Your task to perform on an android device: delete location history Image 0: 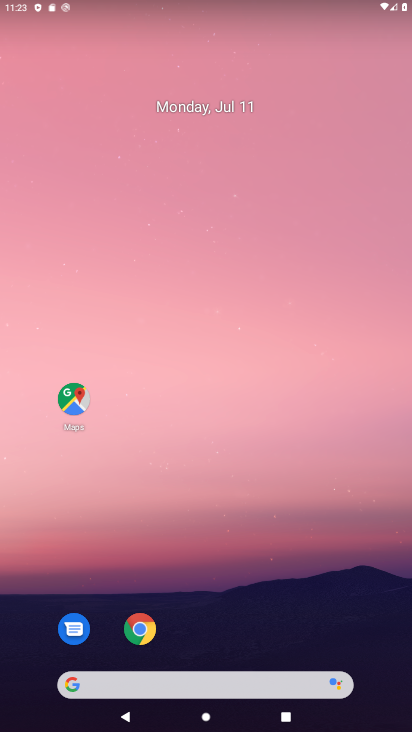
Step 0: drag from (329, 628) to (259, 78)
Your task to perform on an android device: delete location history Image 1: 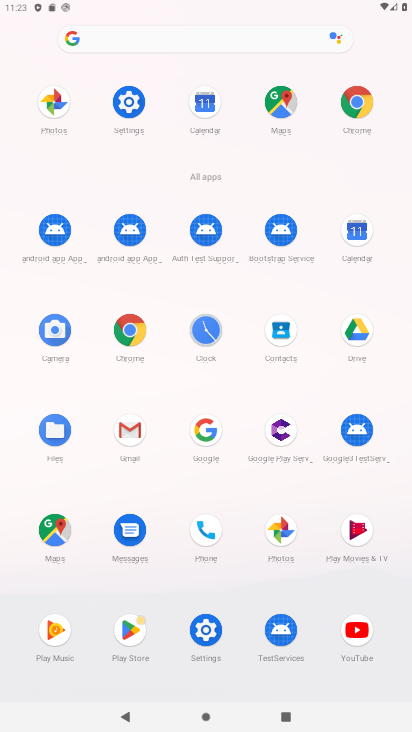
Step 1: click (63, 546)
Your task to perform on an android device: delete location history Image 2: 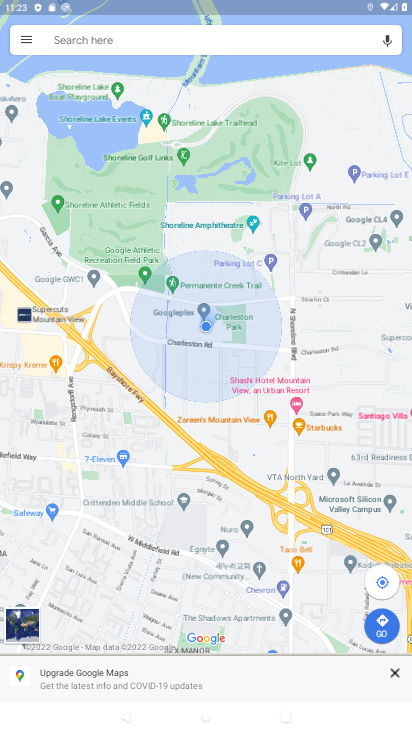
Step 2: click (24, 34)
Your task to perform on an android device: delete location history Image 3: 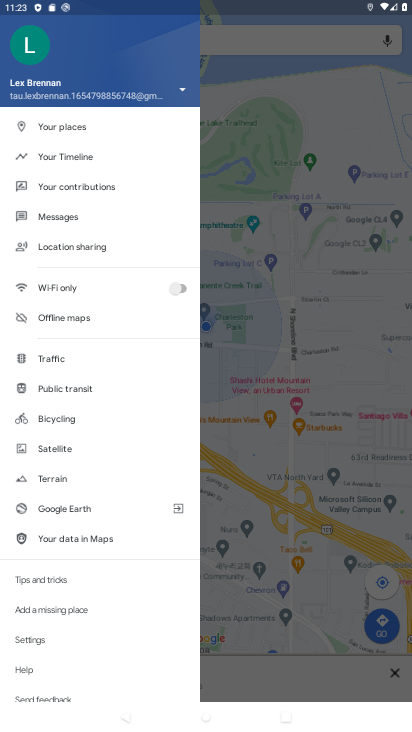
Step 3: click (75, 155)
Your task to perform on an android device: delete location history Image 4: 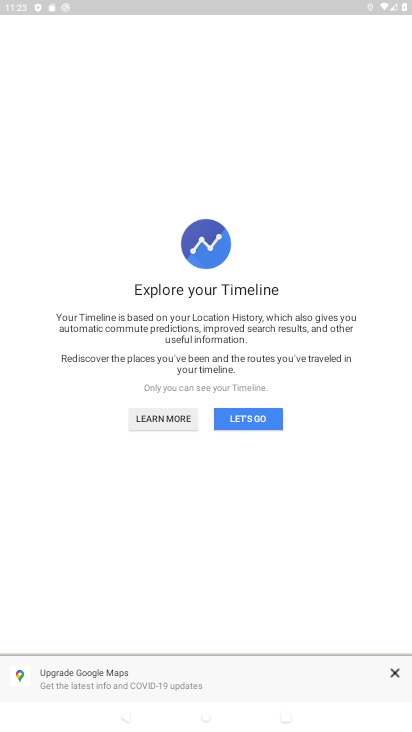
Step 4: click (240, 425)
Your task to perform on an android device: delete location history Image 5: 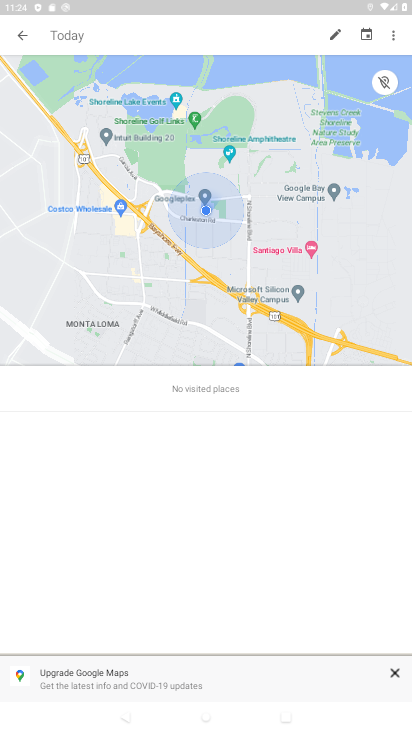
Step 5: click (392, 40)
Your task to perform on an android device: delete location history Image 6: 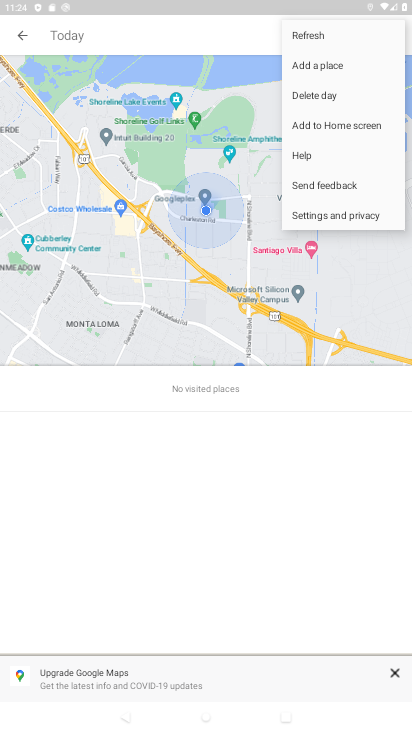
Step 6: click (335, 213)
Your task to perform on an android device: delete location history Image 7: 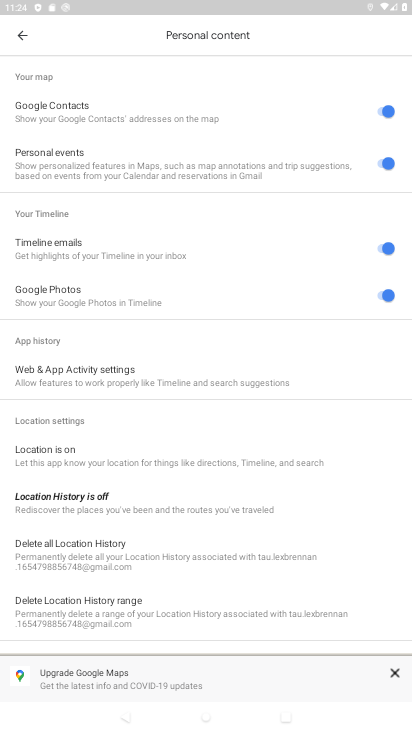
Step 7: click (35, 562)
Your task to perform on an android device: delete location history Image 8: 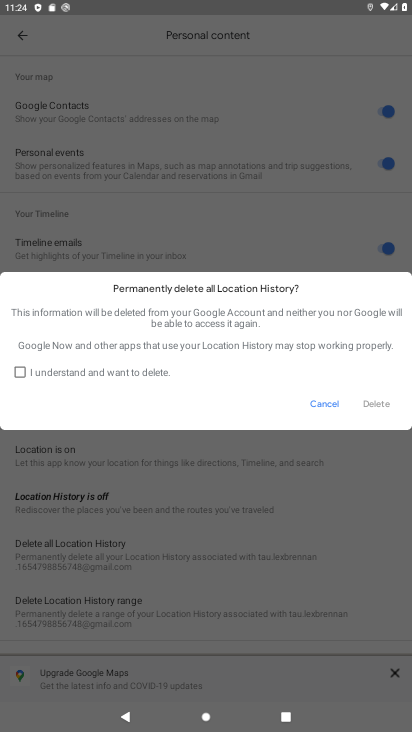
Step 8: click (161, 377)
Your task to perform on an android device: delete location history Image 9: 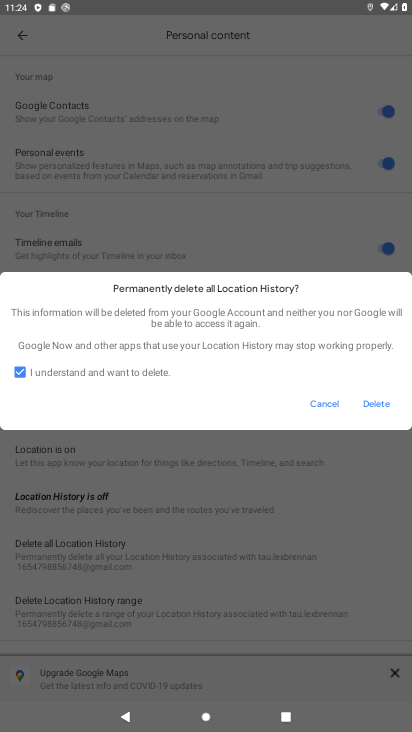
Step 9: click (368, 401)
Your task to perform on an android device: delete location history Image 10: 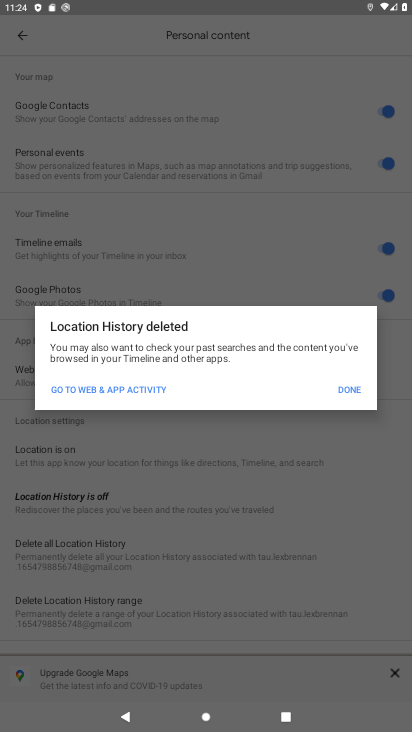
Step 10: click (345, 389)
Your task to perform on an android device: delete location history Image 11: 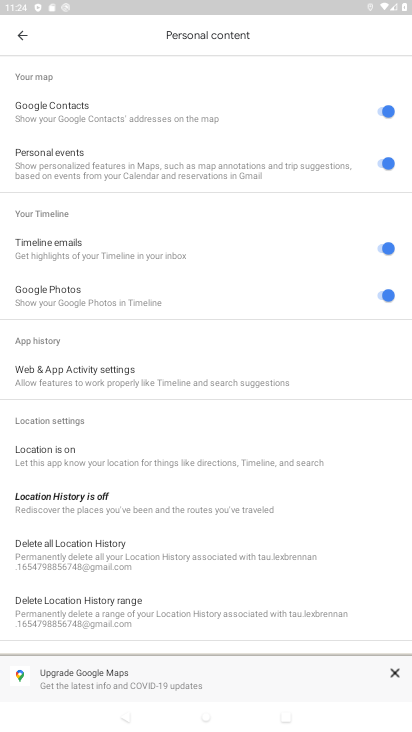
Step 11: task complete